Your task to perform on an android device: Search for coffee table on Crate & Barrel Image 0: 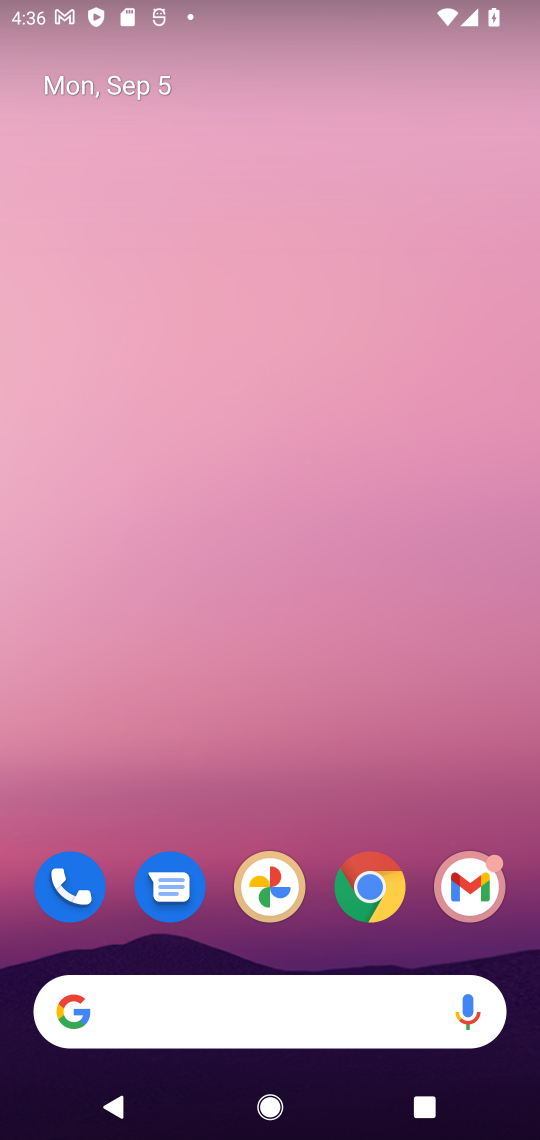
Step 0: drag from (372, 13) to (441, 395)
Your task to perform on an android device: Search for coffee table on Crate & Barrel Image 1: 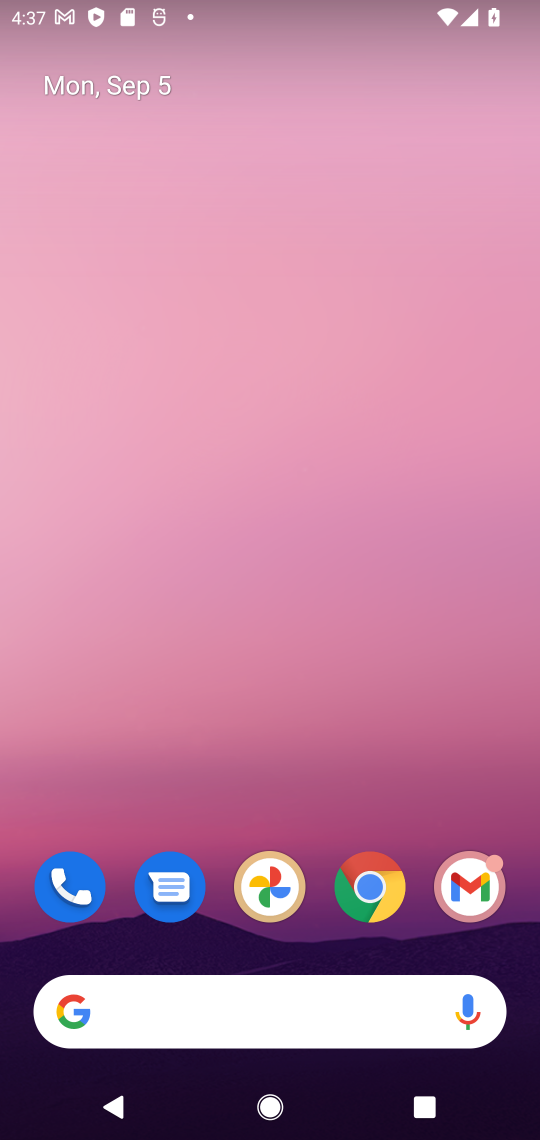
Step 1: drag from (316, 939) to (393, 56)
Your task to perform on an android device: Search for coffee table on Crate & Barrel Image 2: 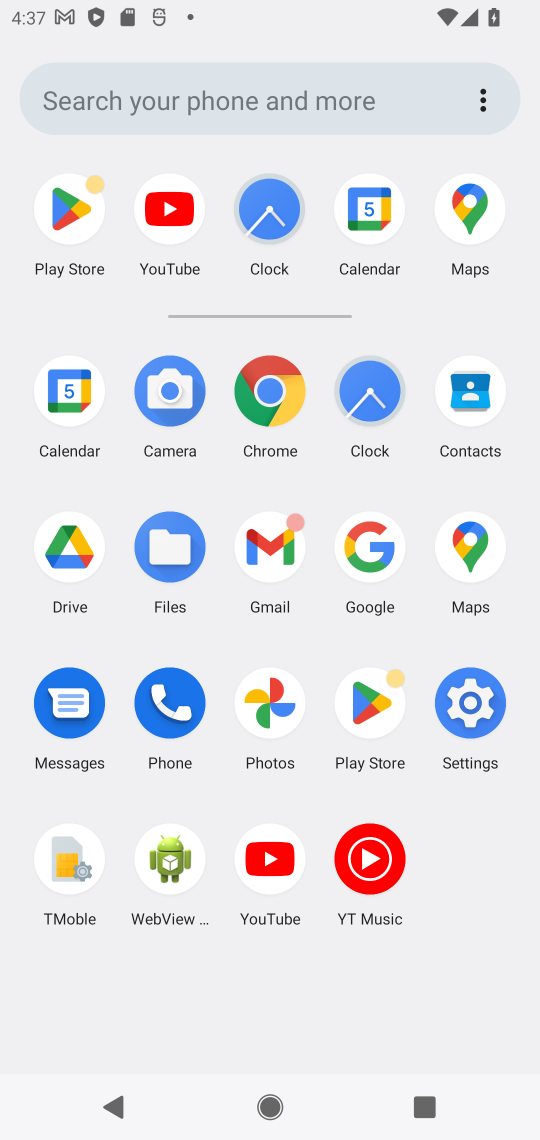
Step 2: click (268, 383)
Your task to perform on an android device: Search for coffee table on Crate & Barrel Image 3: 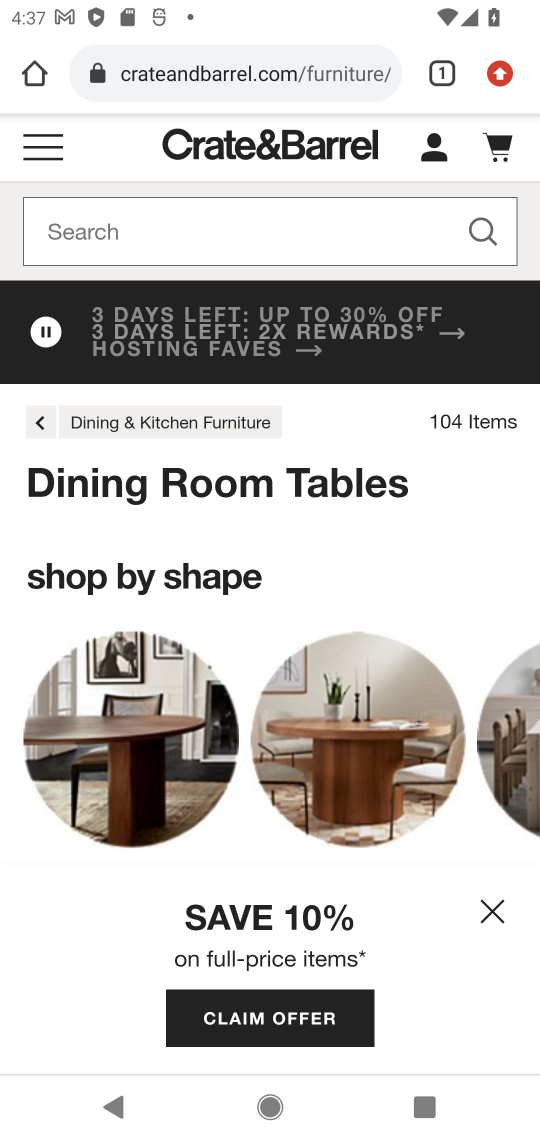
Step 3: click (253, 82)
Your task to perform on an android device: Search for coffee table on Crate & Barrel Image 4: 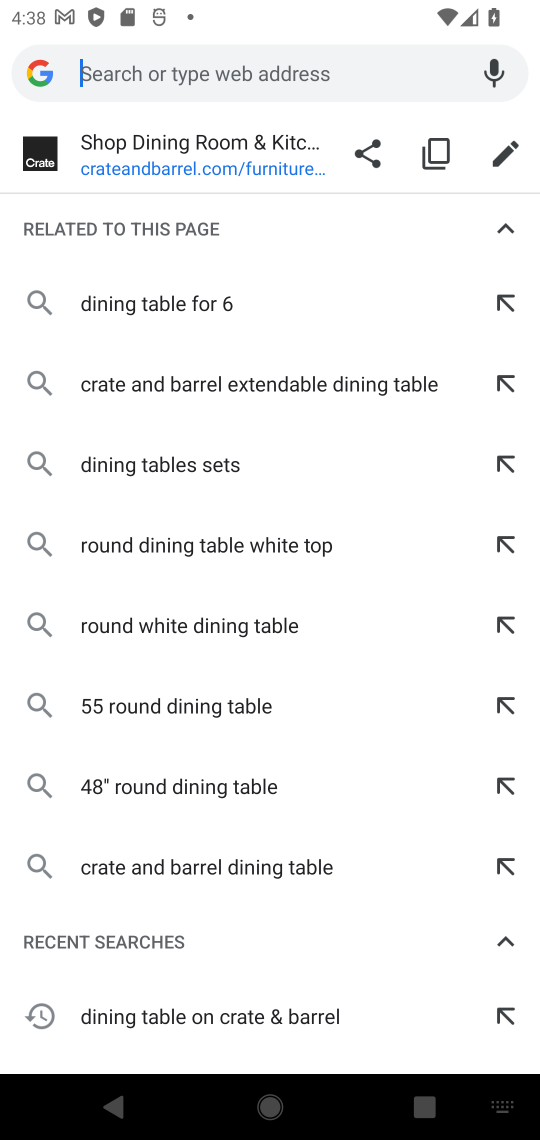
Step 4: type "coffee table on Crate & Barrel"
Your task to perform on an android device: Search for coffee table on Crate & Barrel Image 5: 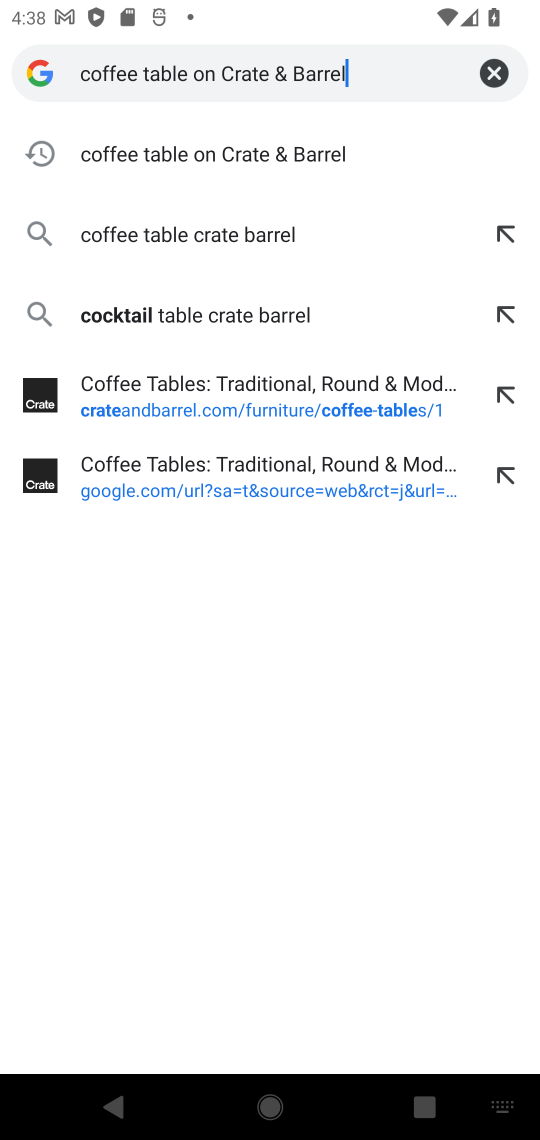
Step 5: press enter
Your task to perform on an android device: Search for coffee table on Crate & Barrel Image 6: 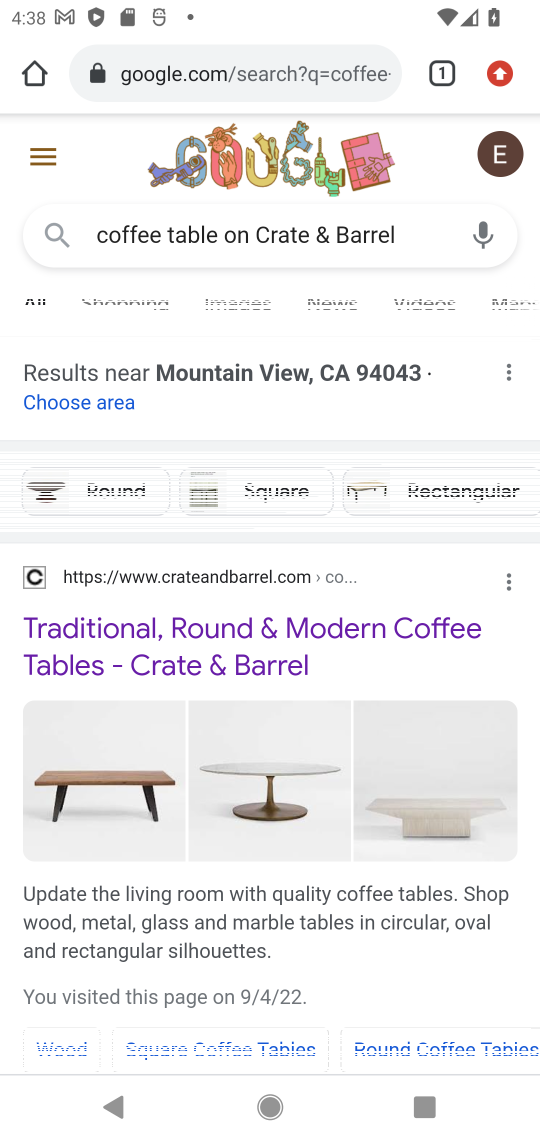
Step 6: click (246, 647)
Your task to perform on an android device: Search for coffee table on Crate & Barrel Image 7: 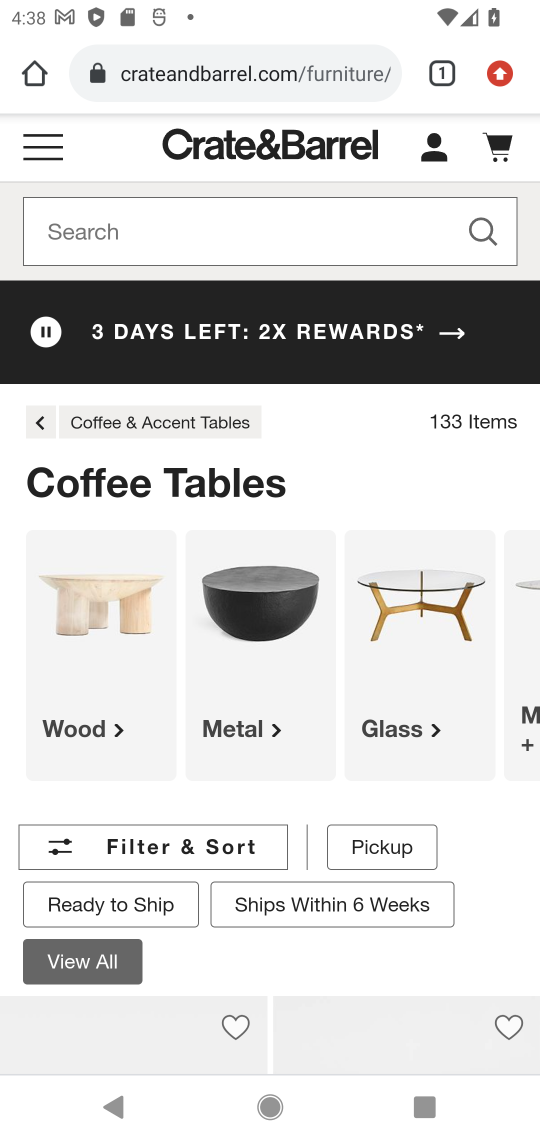
Step 7: task complete